Your task to perform on an android device: open the mobile data screen to see how much data has been used Image 0: 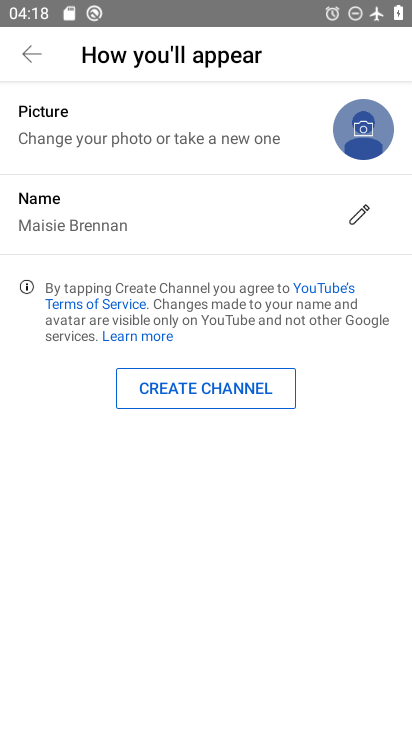
Step 0: press home button
Your task to perform on an android device: open the mobile data screen to see how much data has been used Image 1: 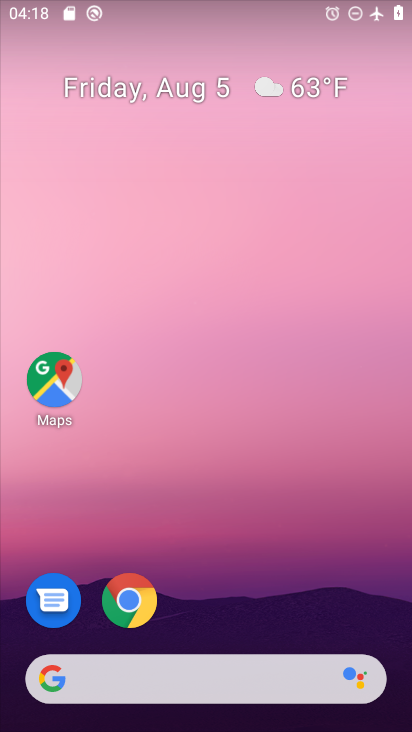
Step 1: drag from (171, 686) to (220, 203)
Your task to perform on an android device: open the mobile data screen to see how much data has been used Image 2: 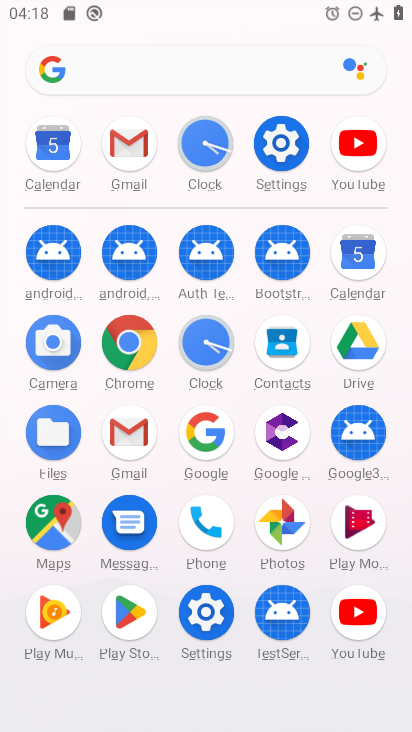
Step 2: click (278, 141)
Your task to perform on an android device: open the mobile data screen to see how much data has been used Image 3: 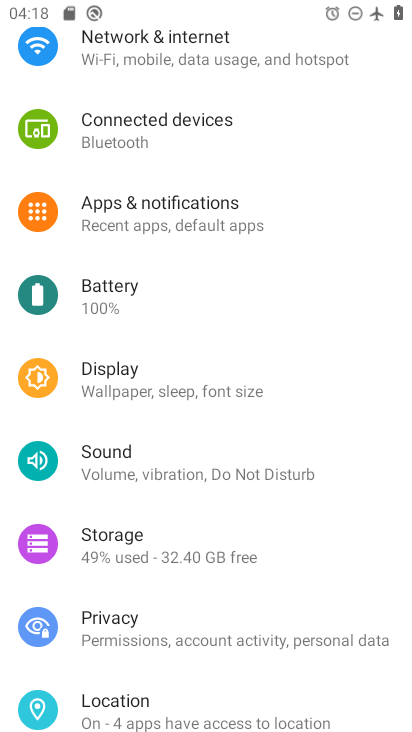
Step 3: click (188, 64)
Your task to perform on an android device: open the mobile data screen to see how much data has been used Image 4: 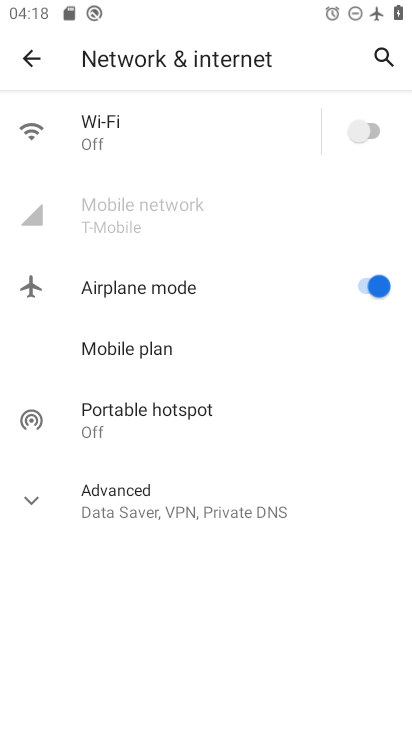
Step 4: task complete